Your task to perform on an android device: Go to accessibility settings Image 0: 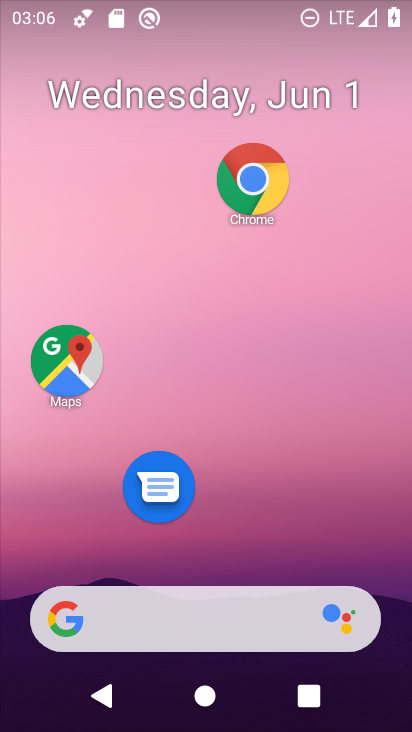
Step 0: drag from (253, 521) to (245, 179)
Your task to perform on an android device: Go to accessibility settings Image 1: 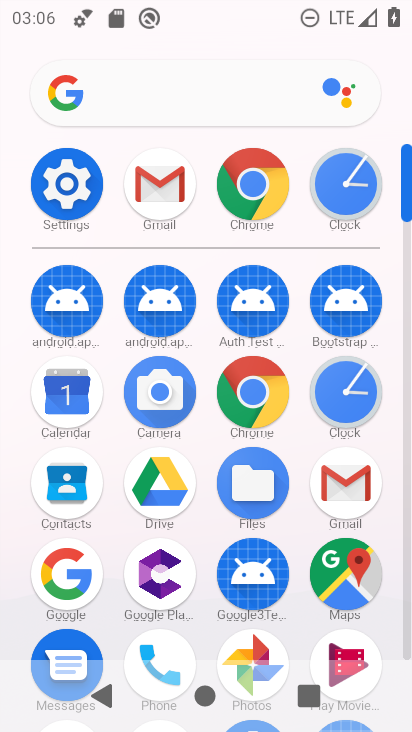
Step 1: click (55, 173)
Your task to perform on an android device: Go to accessibility settings Image 2: 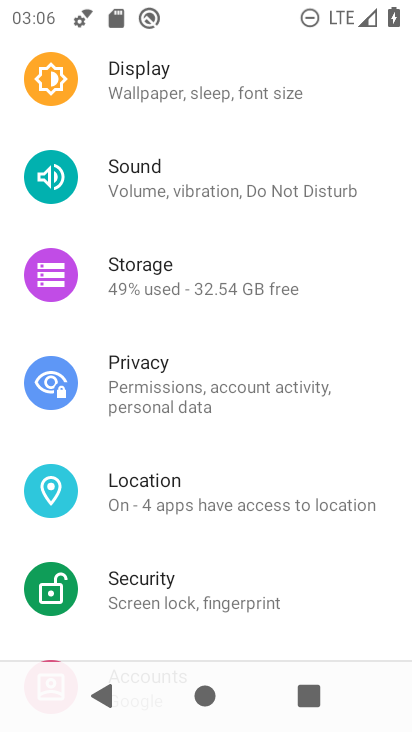
Step 2: drag from (205, 570) to (210, 187)
Your task to perform on an android device: Go to accessibility settings Image 3: 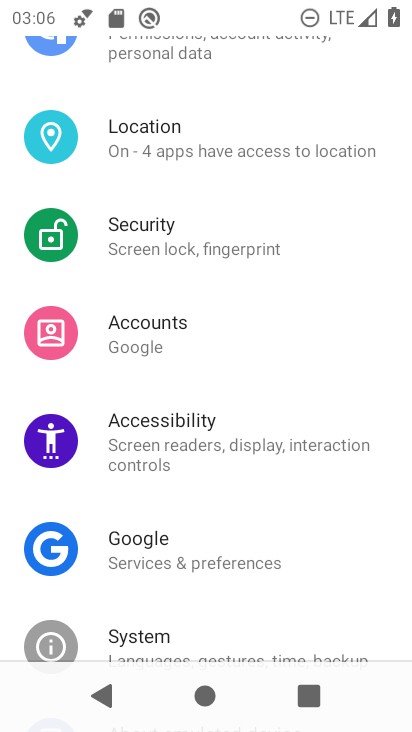
Step 3: click (164, 433)
Your task to perform on an android device: Go to accessibility settings Image 4: 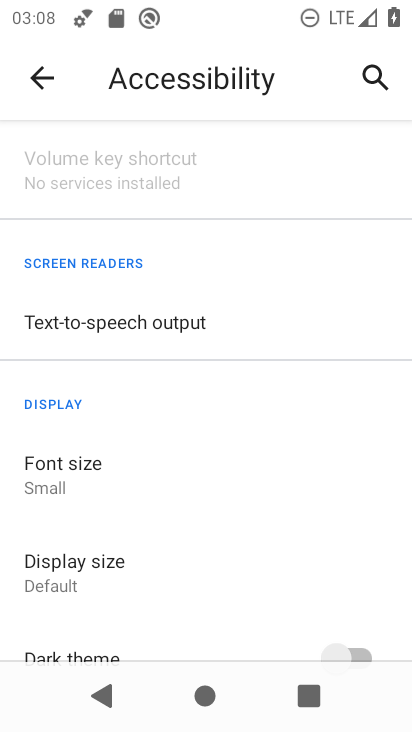
Step 4: task complete